Your task to perform on an android device: Go to display settings Image 0: 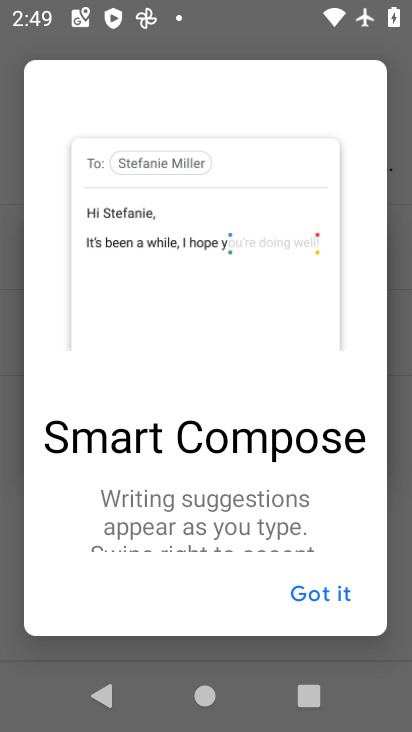
Step 0: press home button
Your task to perform on an android device: Go to display settings Image 1: 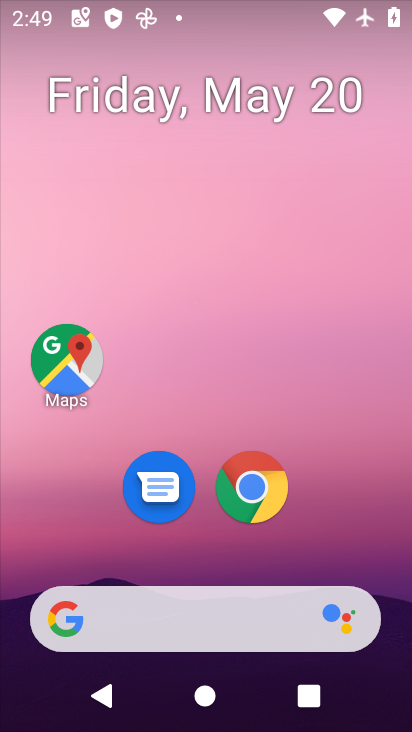
Step 1: drag from (350, 531) to (355, 70)
Your task to perform on an android device: Go to display settings Image 2: 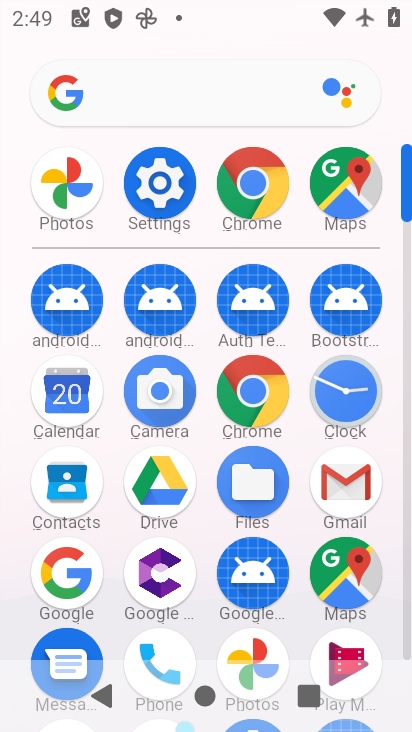
Step 2: click (142, 182)
Your task to perform on an android device: Go to display settings Image 3: 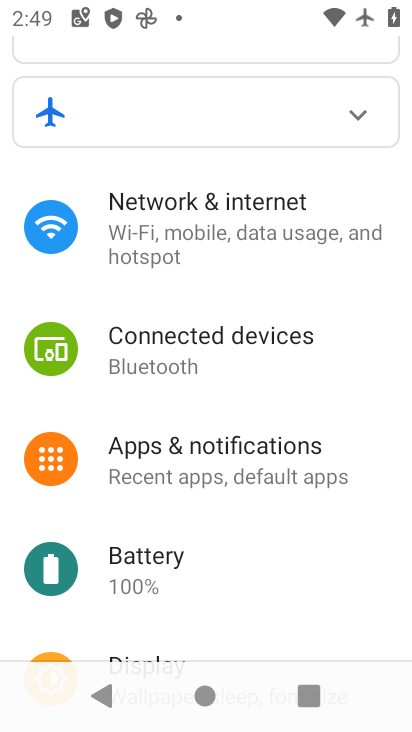
Step 3: drag from (250, 554) to (284, 154)
Your task to perform on an android device: Go to display settings Image 4: 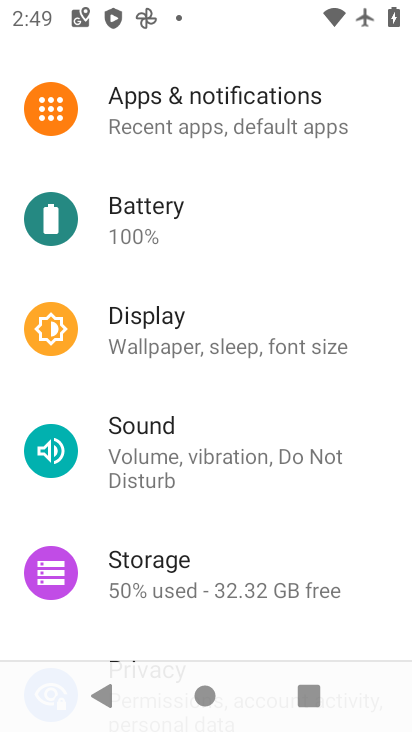
Step 4: click (201, 339)
Your task to perform on an android device: Go to display settings Image 5: 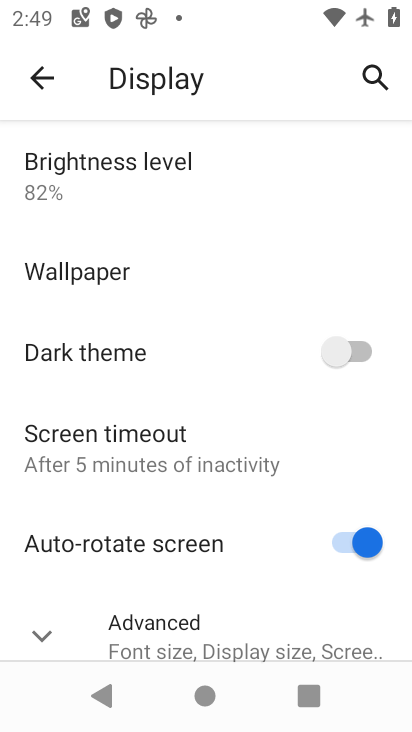
Step 5: task complete